Your task to perform on an android device: Open Youtube and go to "Your channel" Image 0: 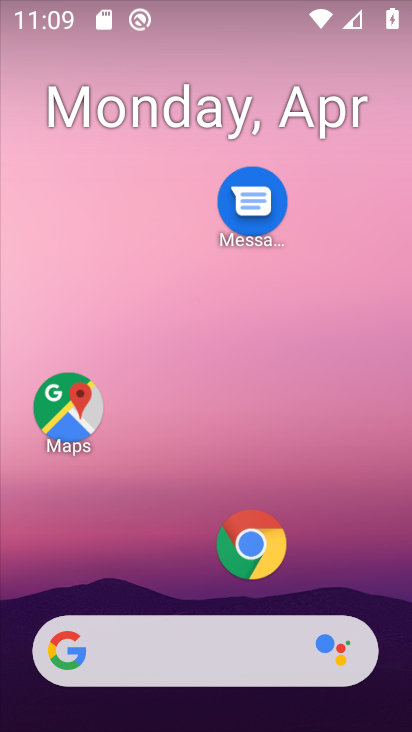
Step 0: press home button
Your task to perform on an android device: Open Youtube and go to "Your channel" Image 1: 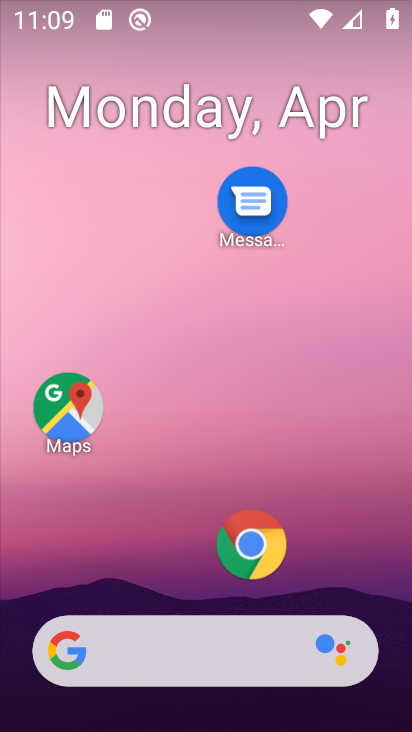
Step 1: drag from (193, 582) to (224, 52)
Your task to perform on an android device: Open Youtube and go to "Your channel" Image 2: 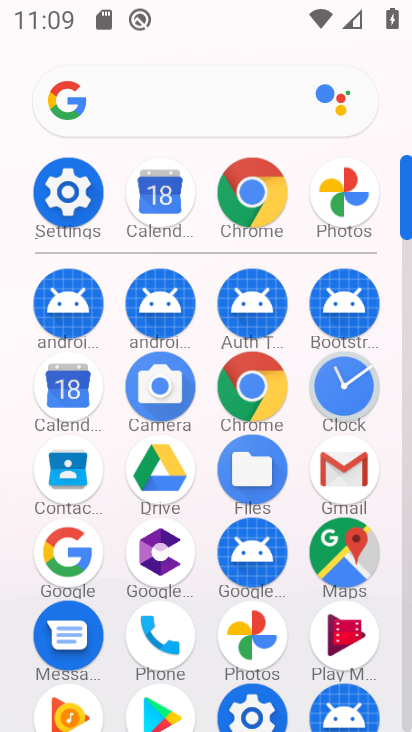
Step 2: drag from (203, 510) to (227, 155)
Your task to perform on an android device: Open Youtube and go to "Your channel" Image 3: 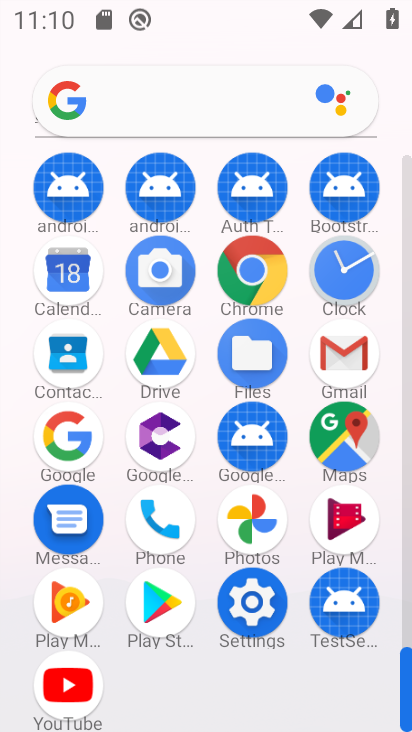
Step 3: click (64, 677)
Your task to perform on an android device: Open Youtube and go to "Your channel" Image 4: 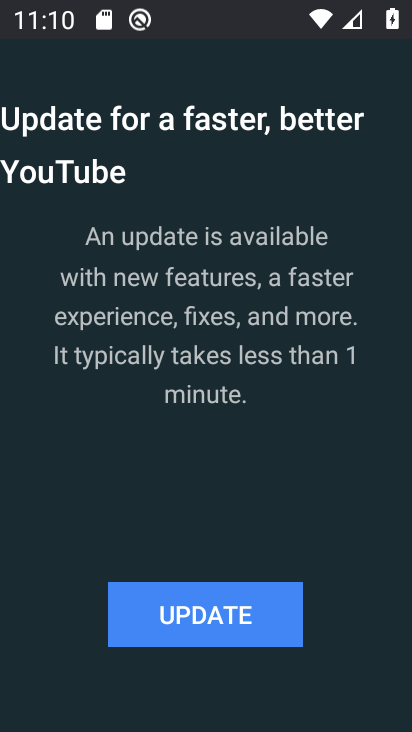
Step 4: click (203, 610)
Your task to perform on an android device: Open Youtube and go to "Your channel" Image 5: 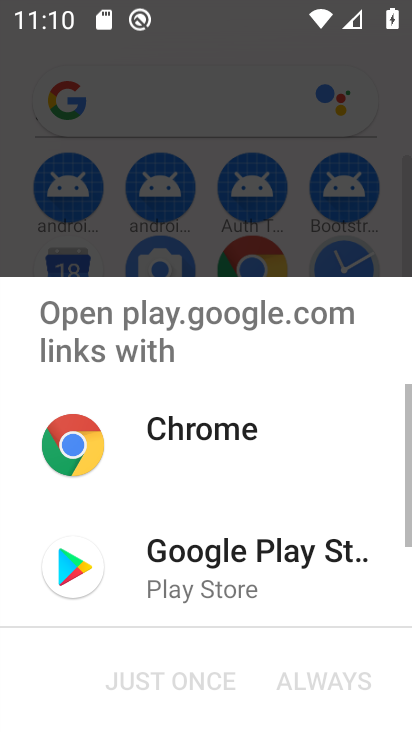
Step 5: click (171, 592)
Your task to perform on an android device: Open Youtube and go to "Your channel" Image 6: 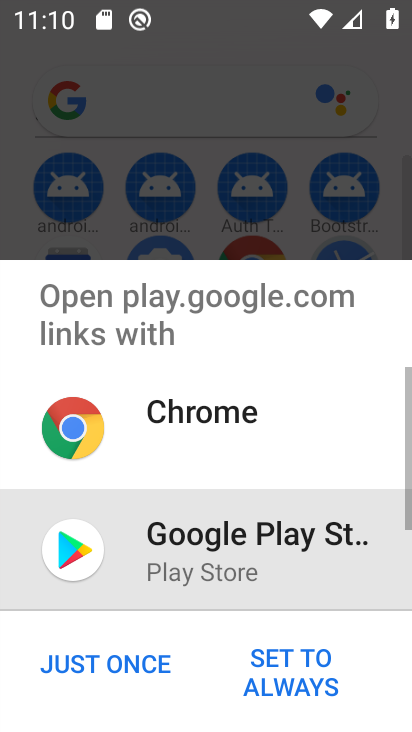
Step 6: click (166, 685)
Your task to perform on an android device: Open Youtube and go to "Your channel" Image 7: 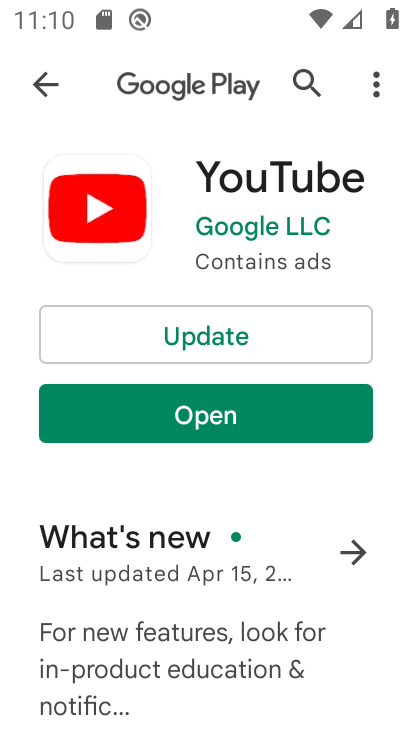
Step 7: click (192, 337)
Your task to perform on an android device: Open Youtube and go to "Your channel" Image 8: 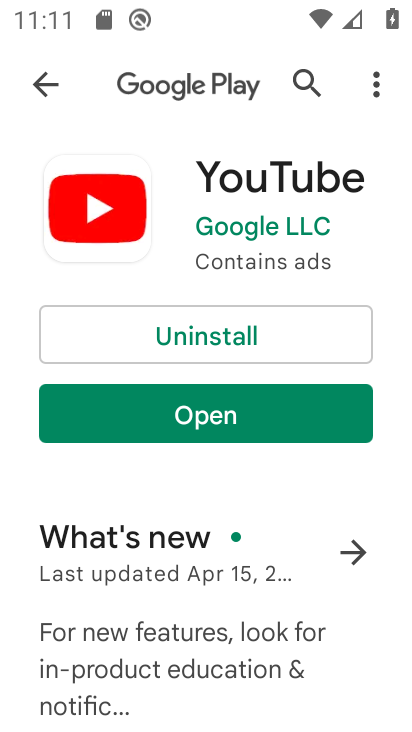
Step 8: click (221, 422)
Your task to perform on an android device: Open Youtube and go to "Your channel" Image 9: 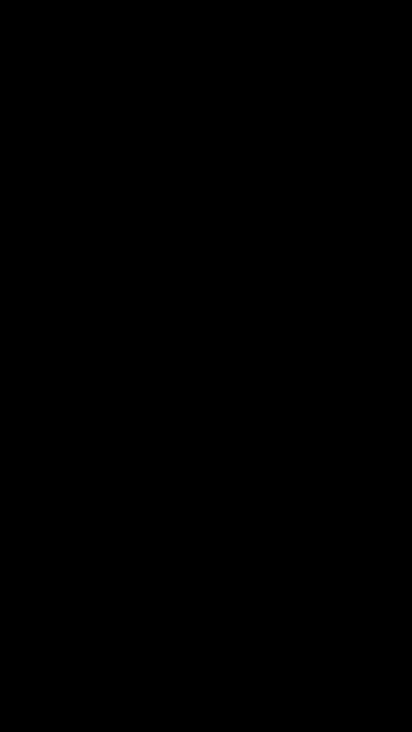
Step 9: click (370, 674)
Your task to perform on an android device: Open Youtube and go to "Your channel" Image 10: 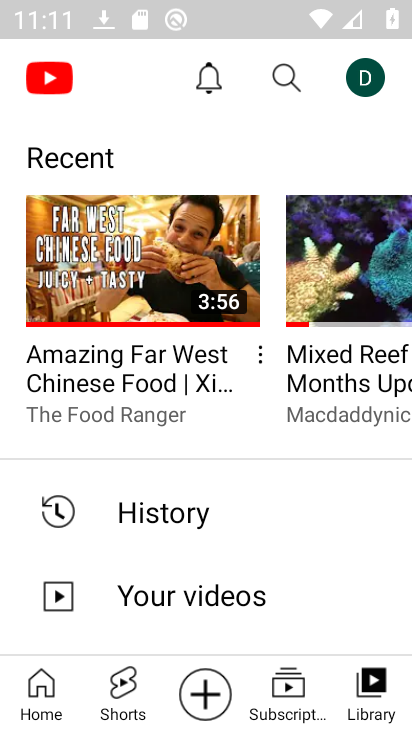
Step 10: click (360, 67)
Your task to perform on an android device: Open Youtube and go to "Your channel" Image 11: 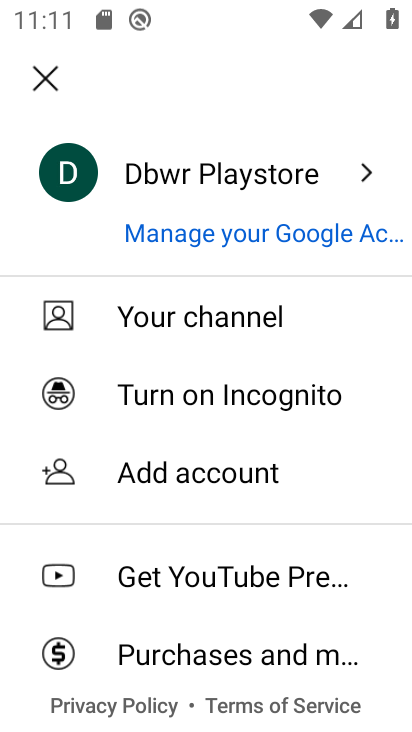
Step 11: click (91, 306)
Your task to perform on an android device: Open Youtube and go to "Your channel" Image 12: 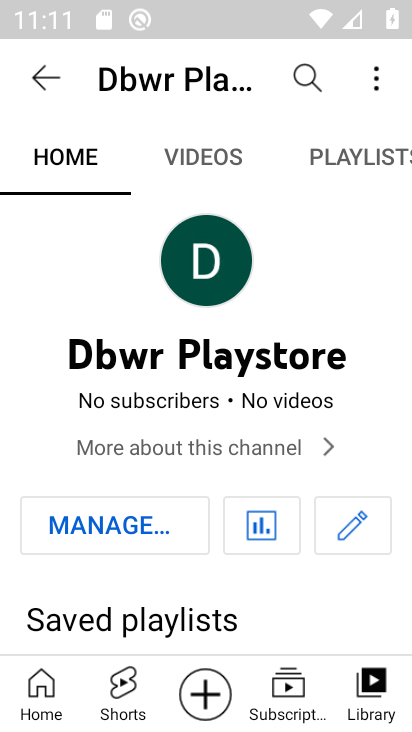
Step 12: task complete